Your task to perform on an android device: Go to wifi settings Image 0: 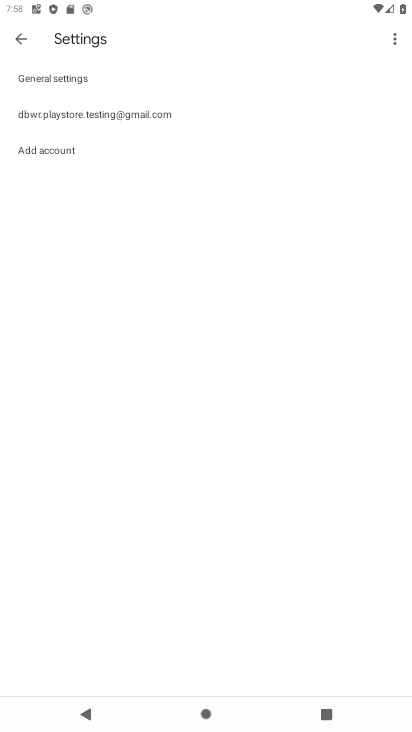
Step 0: drag from (160, 7) to (257, 322)
Your task to perform on an android device: Go to wifi settings Image 1: 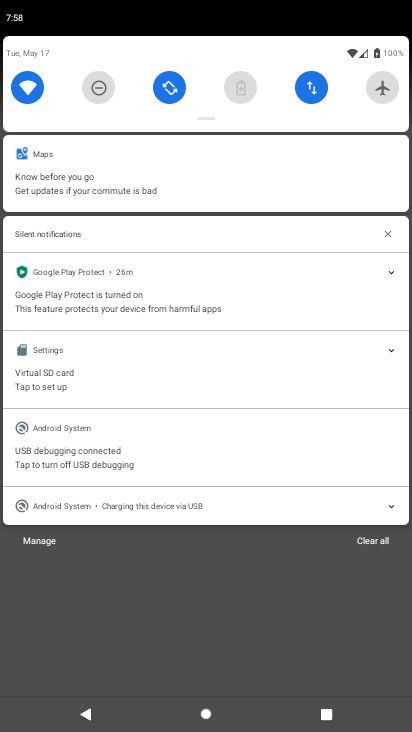
Step 1: click (32, 96)
Your task to perform on an android device: Go to wifi settings Image 2: 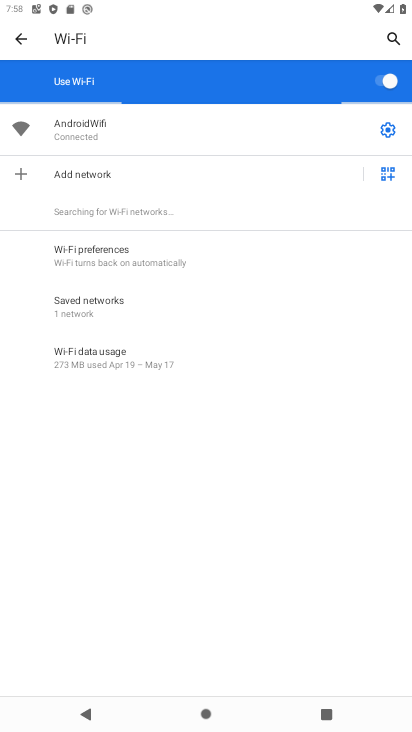
Step 2: task complete